Your task to perform on an android device: Go to Amazon Image 0: 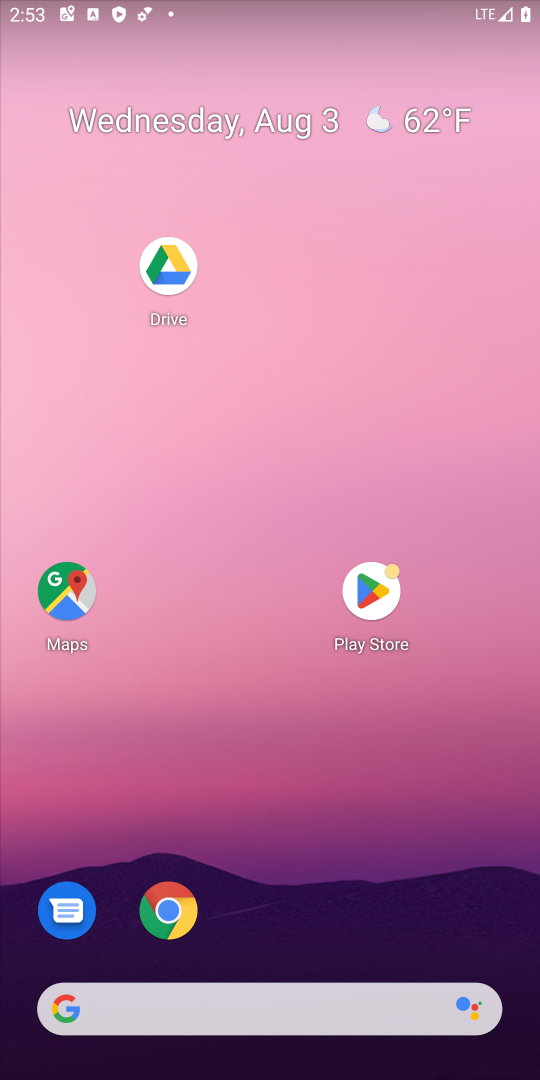
Step 0: drag from (313, 840) to (335, 5)
Your task to perform on an android device: Go to Amazon Image 1: 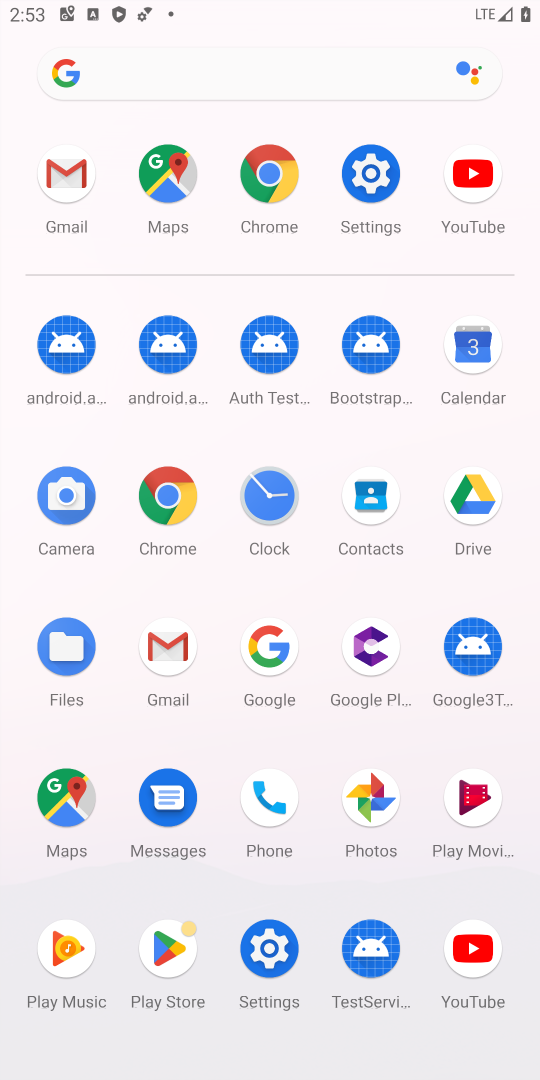
Step 1: click (175, 505)
Your task to perform on an android device: Go to Amazon Image 2: 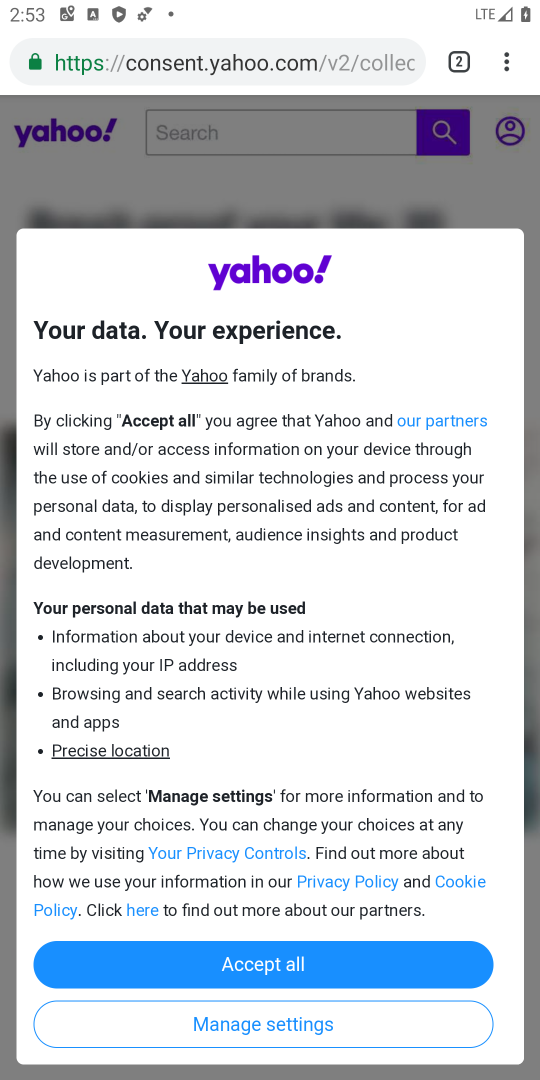
Step 2: click (281, 53)
Your task to perform on an android device: Go to Amazon Image 3: 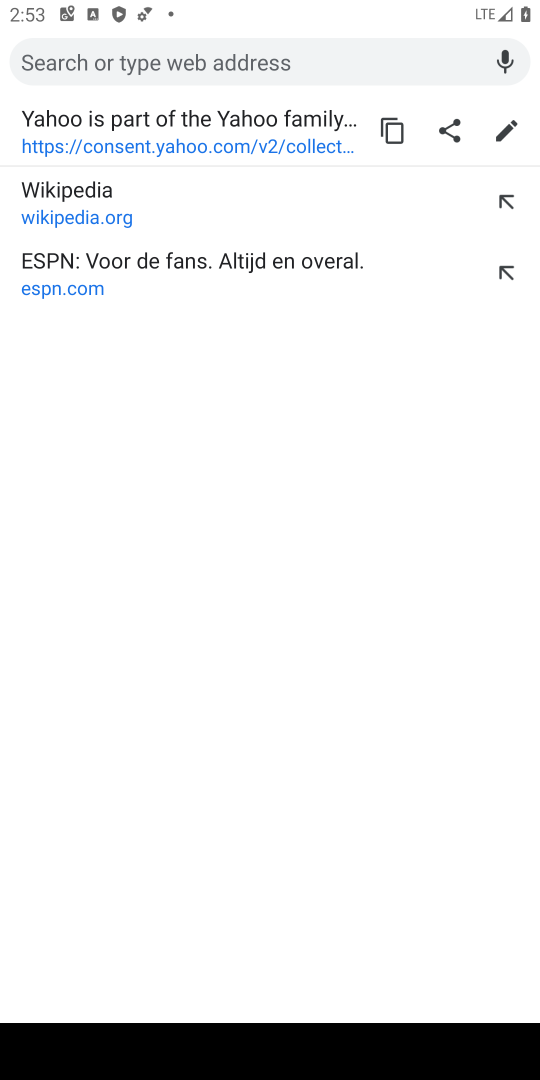
Step 3: type "amazon"
Your task to perform on an android device: Go to Amazon Image 4: 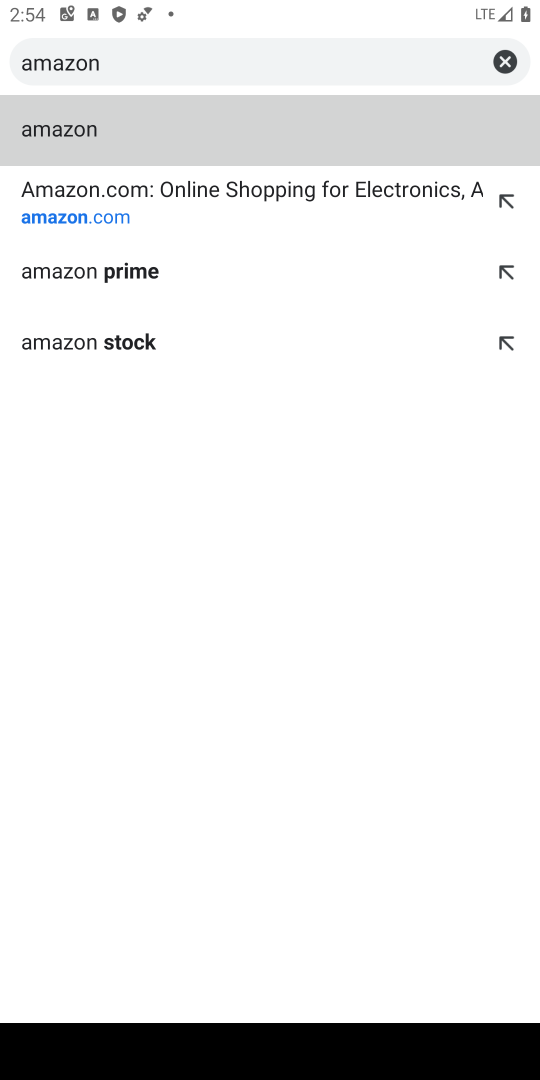
Step 4: click (265, 204)
Your task to perform on an android device: Go to Amazon Image 5: 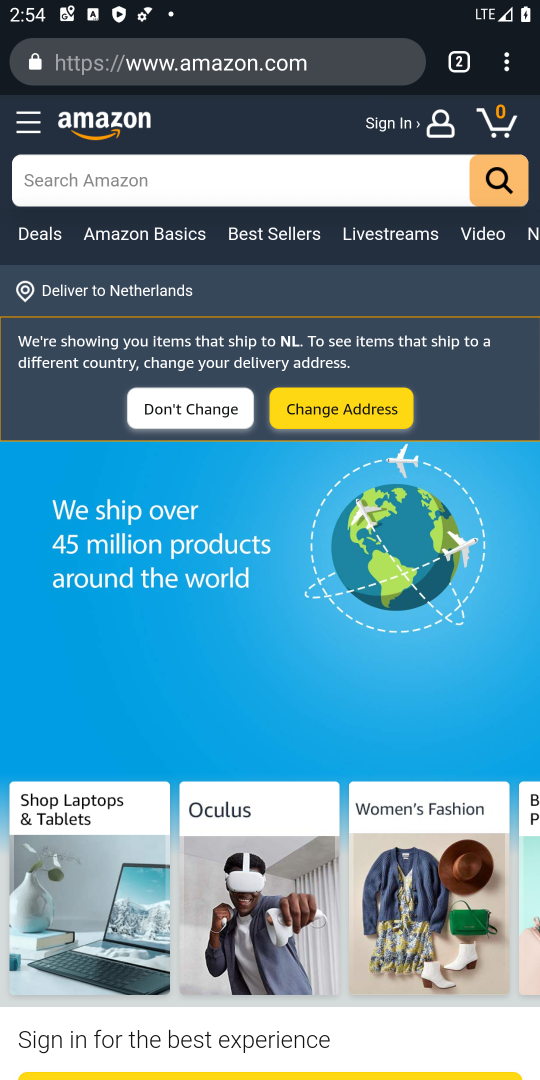
Step 5: press home button
Your task to perform on an android device: Go to Amazon Image 6: 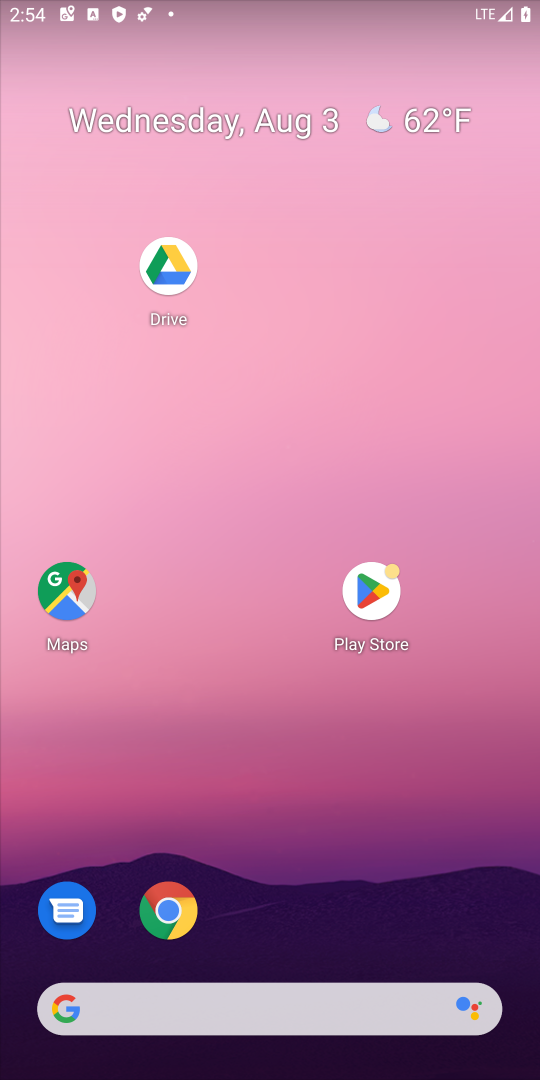
Step 6: drag from (217, 824) to (149, 3)
Your task to perform on an android device: Go to Amazon Image 7: 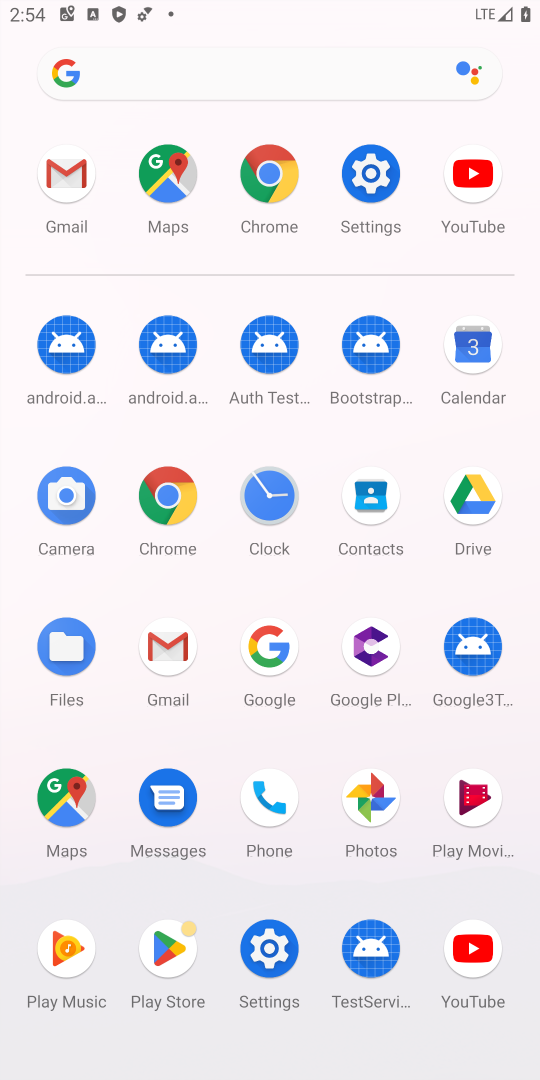
Step 7: click (166, 500)
Your task to perform on an android device: Go to Amazon Image 8: 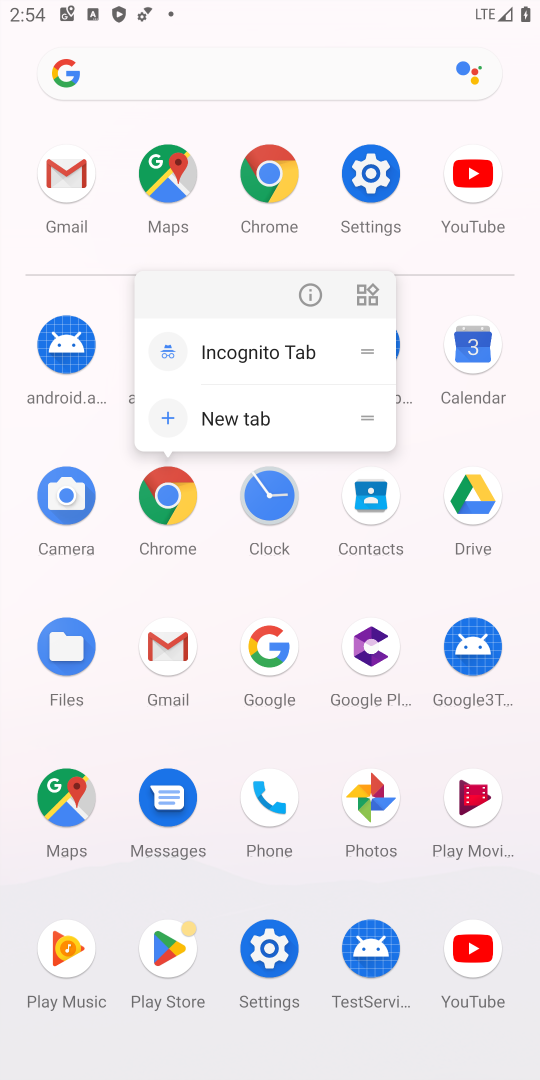
Step 8: click (166, 500)
Your task to perform on an android device: Go to Amazon Image 9: 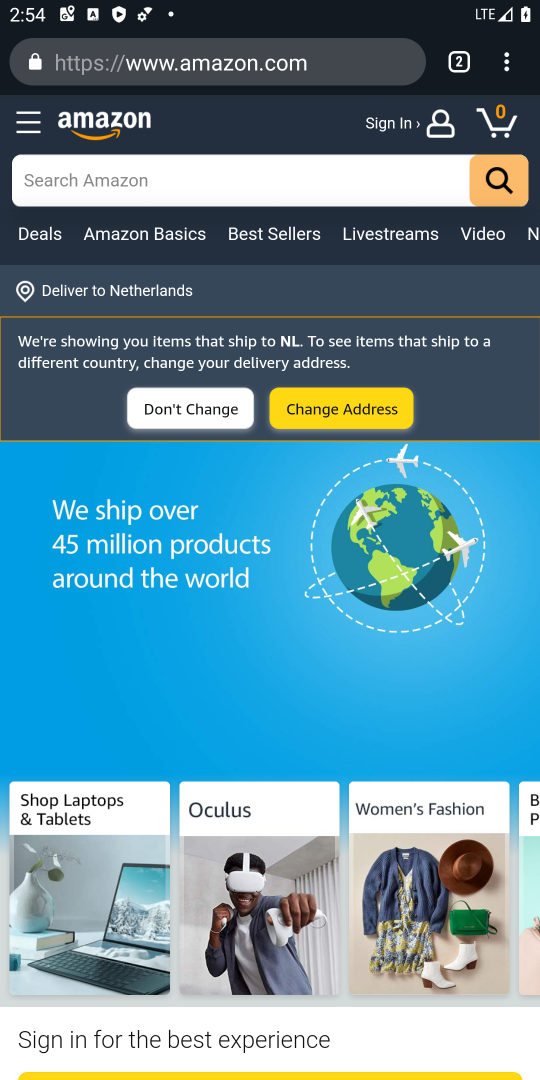
Step 9: task complete